Your task to perform on an android device: What's the weather today? Image 0: 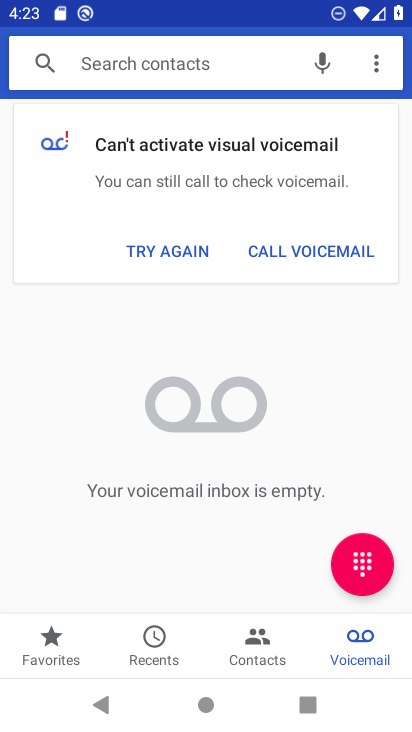
Step 0: press home button
Your task to perform on an android device: What's the weather today? Image 1: 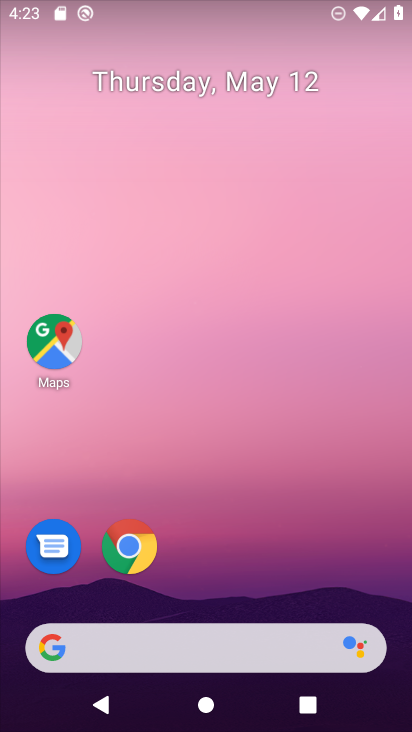
Step 1: drag from (242, 492) to (248, 238)
Your task to perform on an android device: What's the weather today? Image 2: 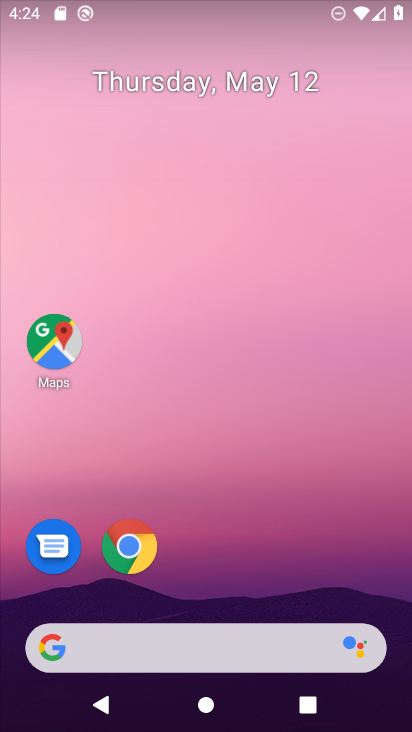
Step 2: drag from (285, 583) to (244, 224)
Your task to perform on an android device: What's the weather today? Image 3: 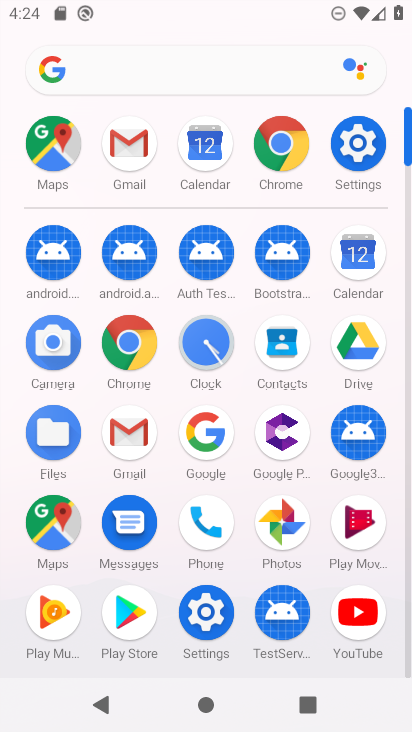
Step 3: click (284, 136)
Your task to perform on an android device: What's the weather today? Image 4: 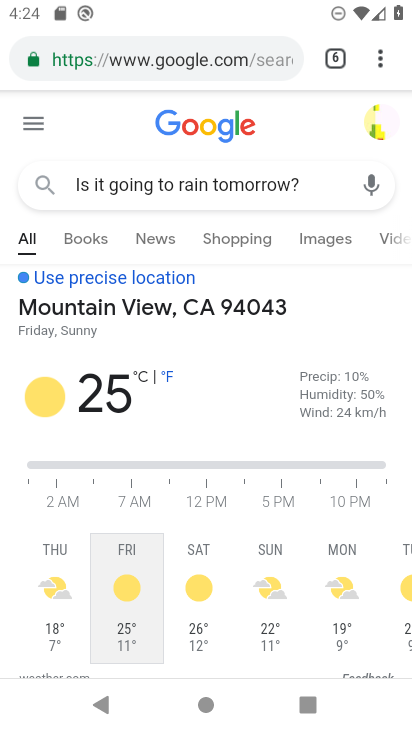
Step 4: click (368, 56)
Your task to perform on an android device: What's the weather today? Image 5: 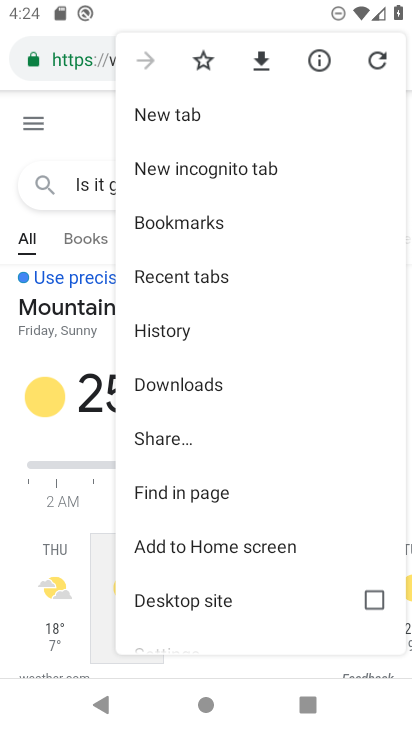
Step 5: click (193, 121)
Your task to perform on an android device: What's the weather today? Image 6: 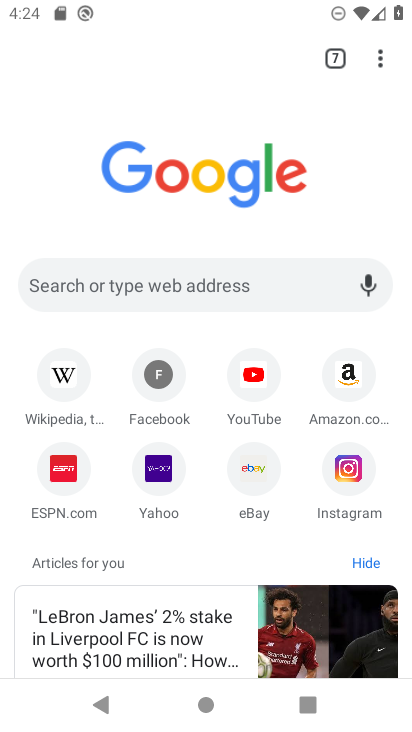
Step 6: click (165, 270)
Your task to perform on an android device: What's the weather today? Image 7: 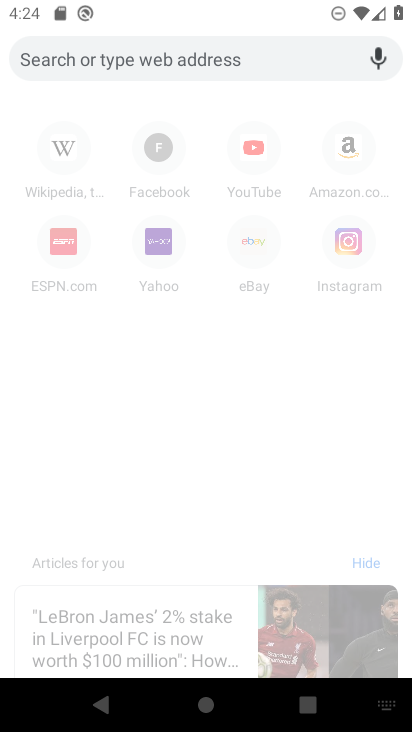
Step 7: type "What's the weather today?"
Your task to perform on an android device: What's the weather today? Image 8: 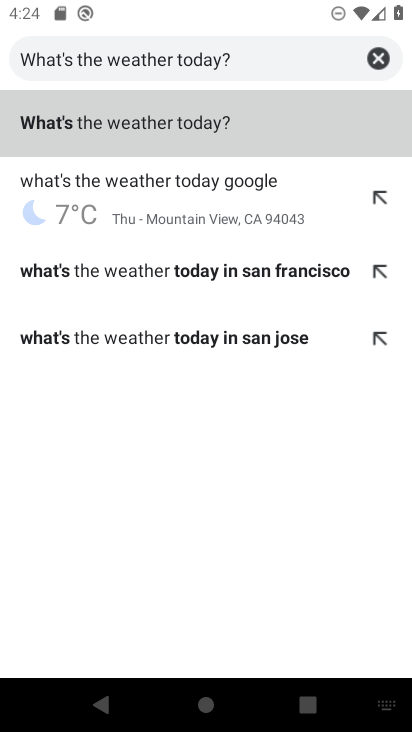
Step 8: click (188, 118)
Your task to perform on an android device: What's the weather today? Image 9: 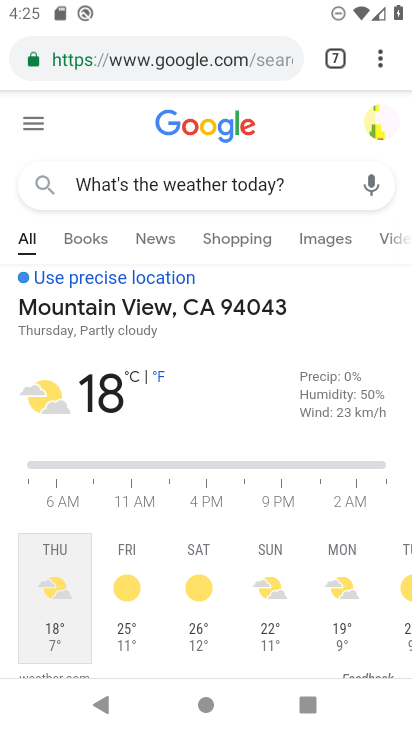
Step 9: task complete